Your task to perform on an android device: Do I have any events today? Image 0: 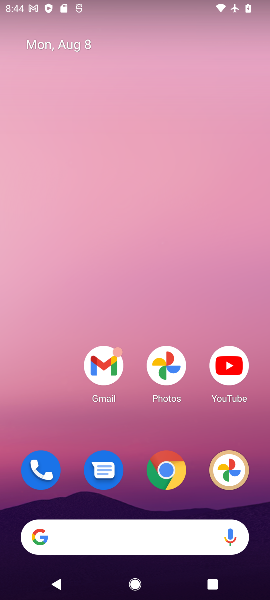
Step 0: drag from (133, 516) to (133, 231)
Your task to perform on an android device: Do I have any events today? Image 1: 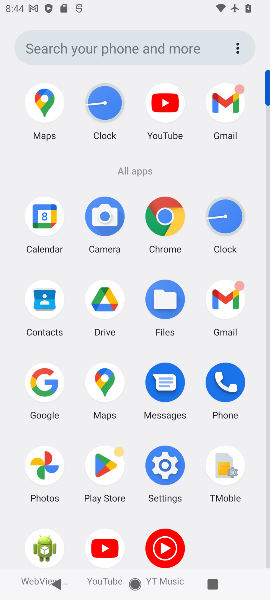
Step 1: click (43, 221)
Your task to perform on an android device: Do I have any events today? Image 2: 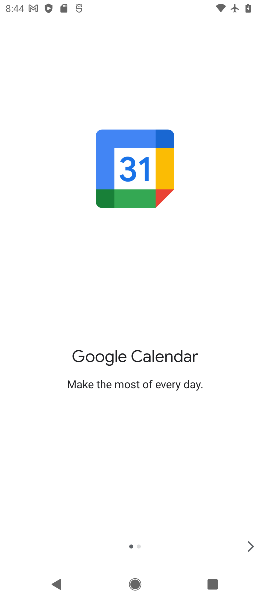
Step 2: click (246, 544)
Your task to perform on an android device: Do I have any events today? Image 3: 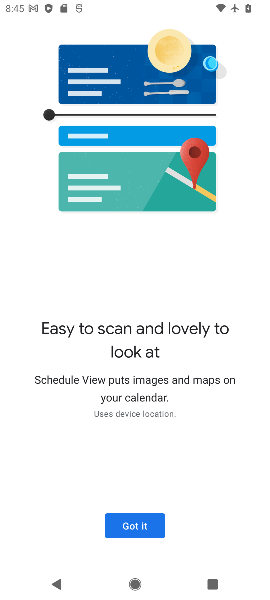
Step 3: click (147, 522)
Your task to perform on an android device: Do I have any events today? Image 4: 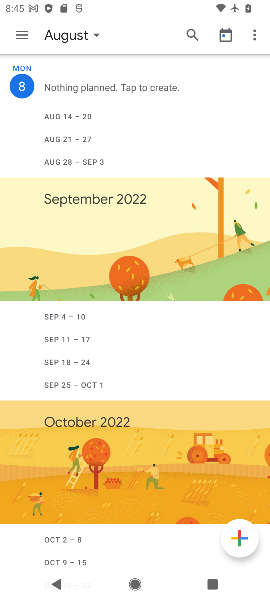
Step 4: click (63, 36)
Your task to perform on an android device: Do I have any events today? Image 5: 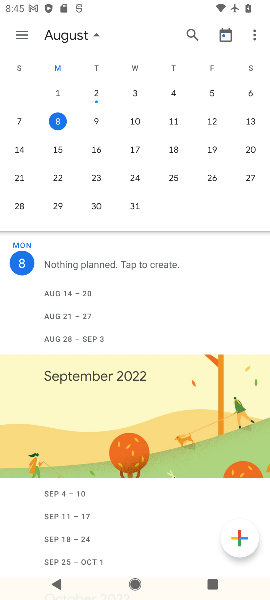
Step 5: task complete